Your task to perform on an android device: Open the Play Movies app and select the watchlist tab. Image 0: 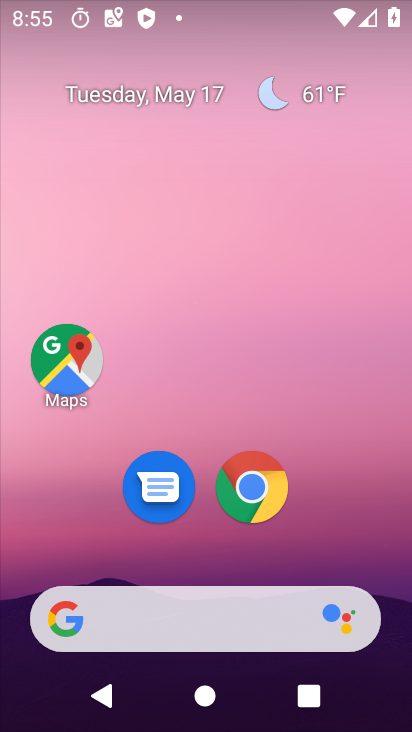
Step 0: drag from (183, 623) to (339, 135)
Your task to perform on an android device: Open the Play Movies app and select the watchlist tab. Image 1: 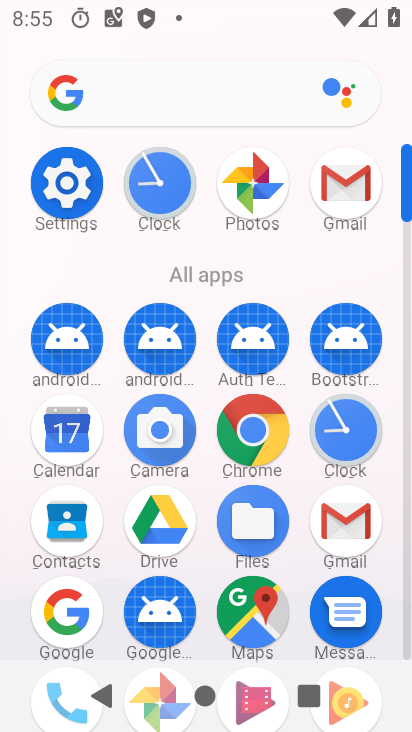
Step 1: drag from (214, 580) to (358, 125)
Your task to perform on an android device: Open the Play Movies app and select the watchlist tab. Image 2: 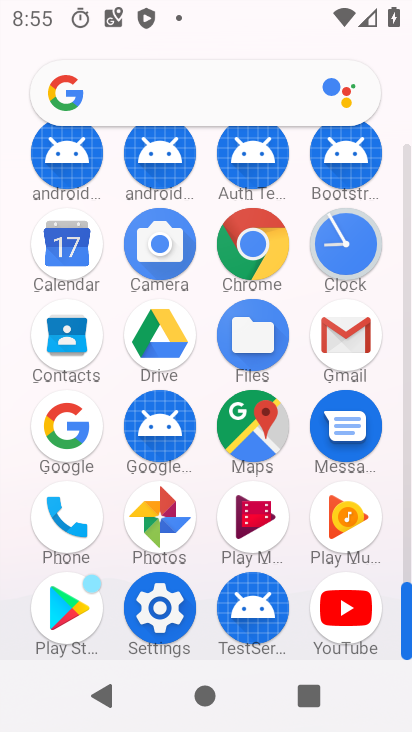
Step 2: click (259, 525)
Your task to perform on an android device: Open the Play Movies app and select the watchlist tab. Image 3: 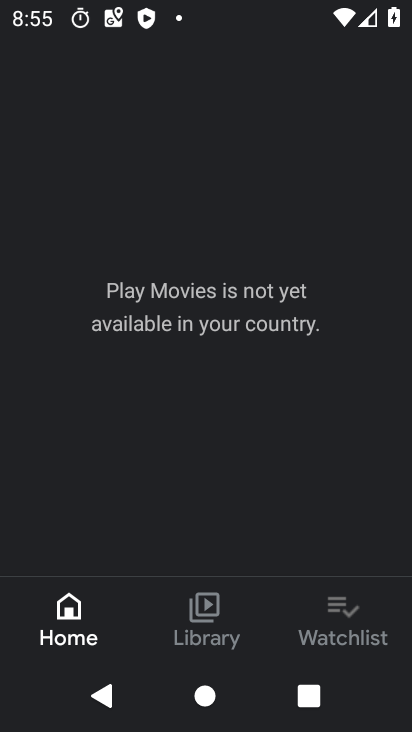
Step 3: click (352, 622)
Your task to perform on an android device: Open the Play Movies app and select the watchlist tab. Image 4: 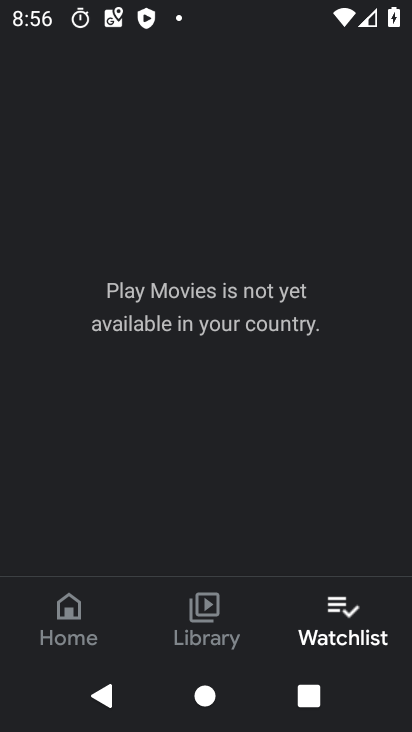
Step 4: task complete